Your task to perform on an android device: all mails in gmail Image 0: 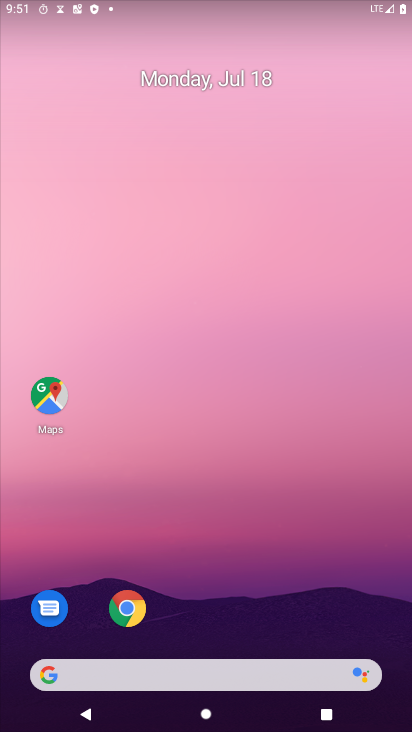
Step 0: drag from (166, 516) to (162, 139)
Your task to perform on an android device: all mails in gmail Image 1: 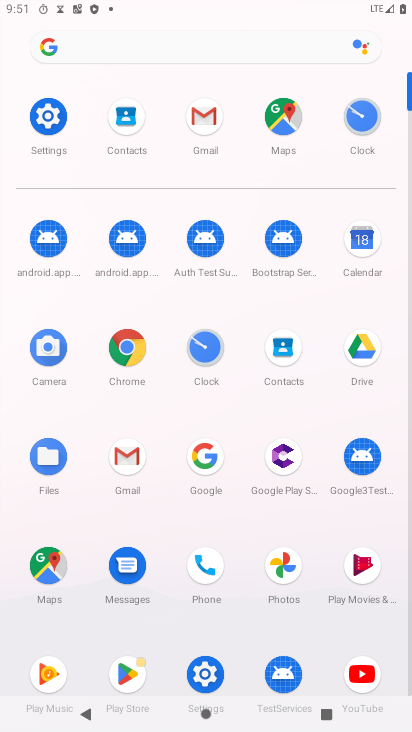
Step 1: click (129, 459)
Your task to perform on an android device: all mails in gmail Image 2: 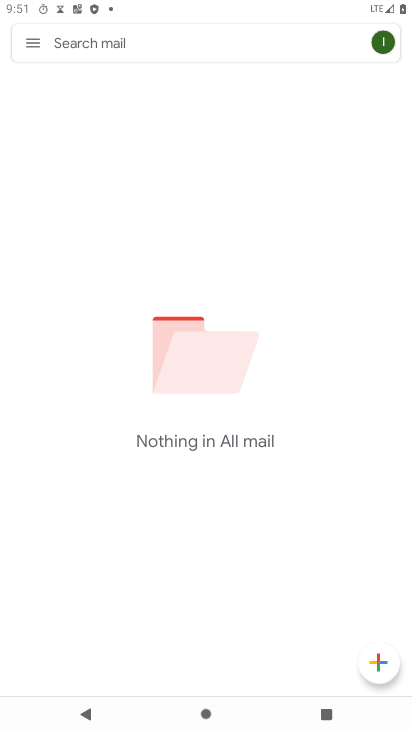
Step 2: task complete